Your task to perform on an android device: open wifi settings Image 0: 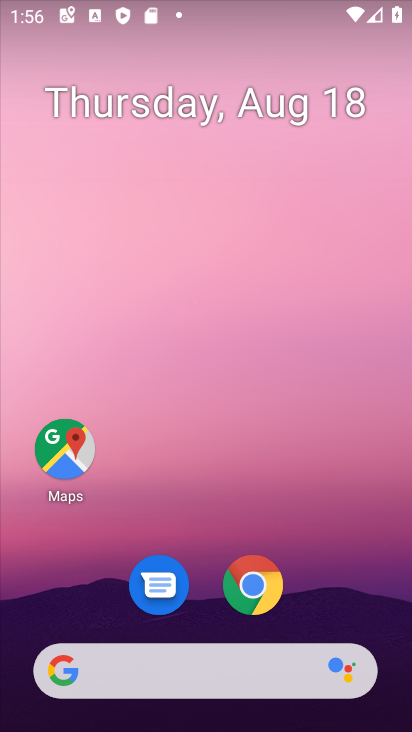
Step 0: drag from (285, 524) to (298, 0)
Your task to perform on an android device: open wifi settings Image 1: 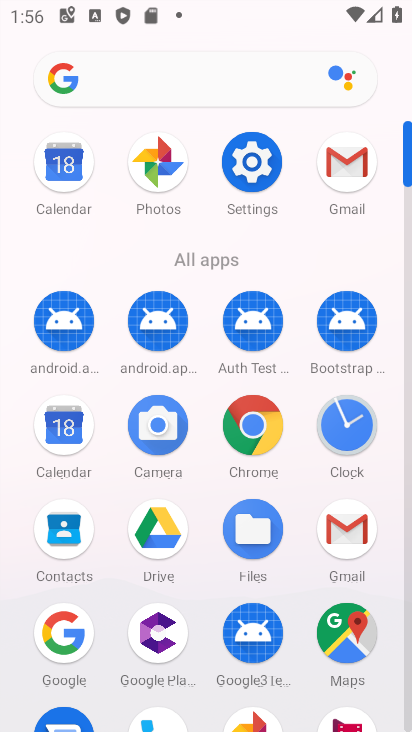
Step 1: click (257, 161)
Your task to perform on an android device: open wifi settings Image 2: 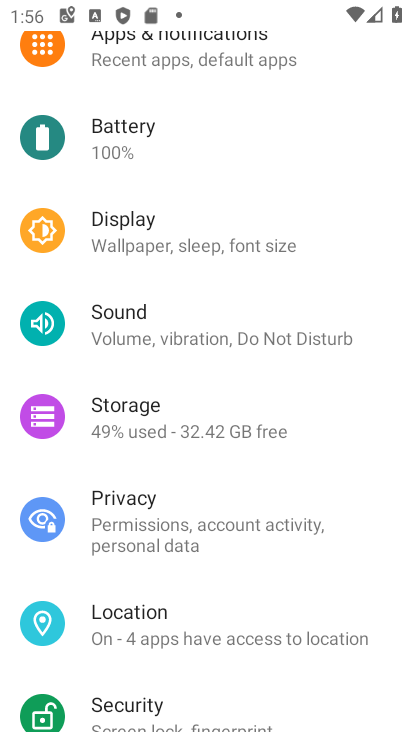
Step 2: drag from (255, 173) to (270, 495)
Your task to perform on an android device: open wifi settings Image 3: 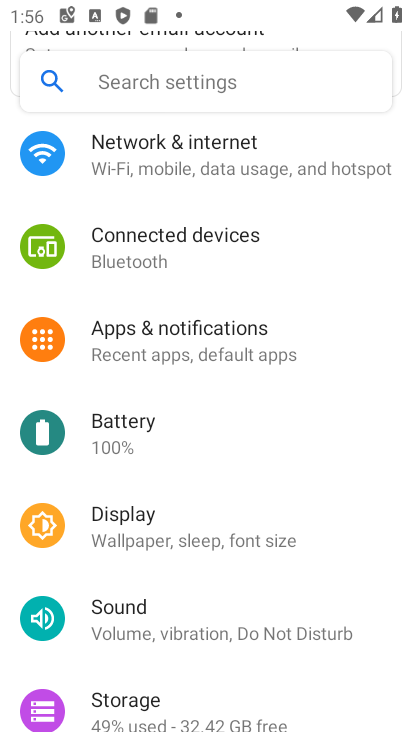
Step 3: click (232, 159)
Your task to perform on an android device: open wifi settings Image 4: 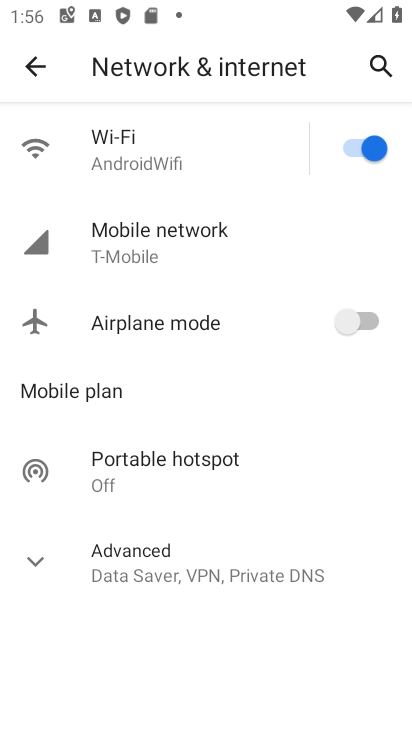
Step 4: click (162, 138)
Your task to perform on an android device: open wifi settings Image 5: 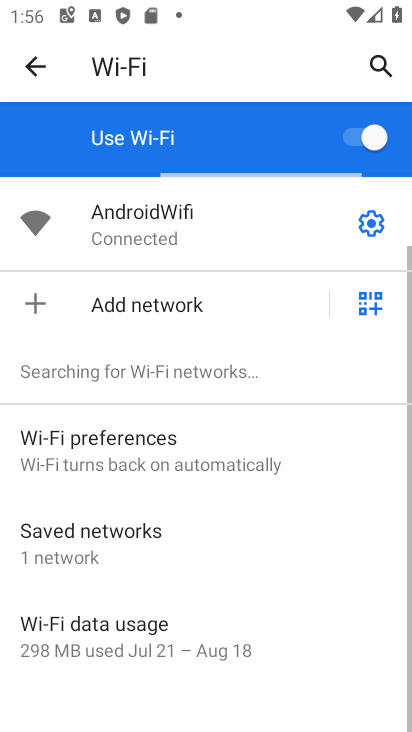
Step 5: task complete